Your task to perform on an android device: Open Google Maps Image 0: 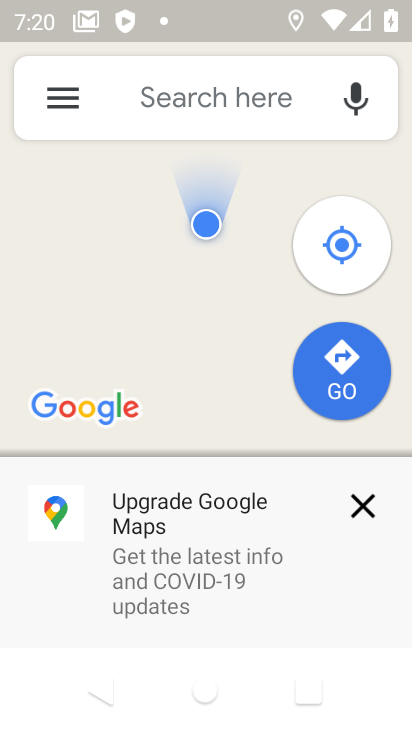
Step 0: click (368, 505)
Your task to perform on an android device: Open Google Maps Image 1: 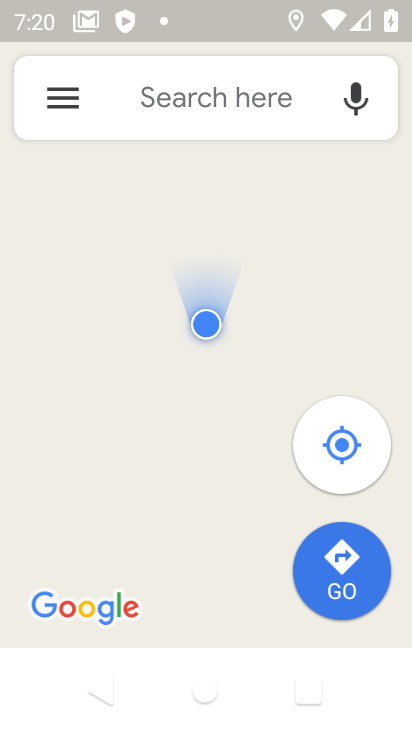
Step 1: task complete